Your task to perform on an android device: toggle wifi Image 0: 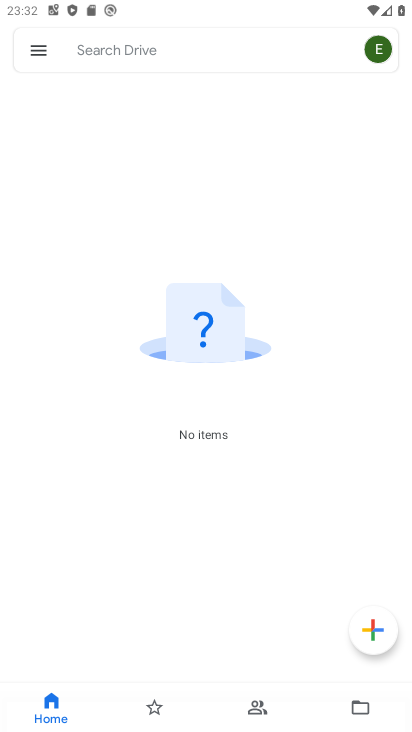
Step 0: press home button
Your task to perform on an android device: toggle wifi Image 1: 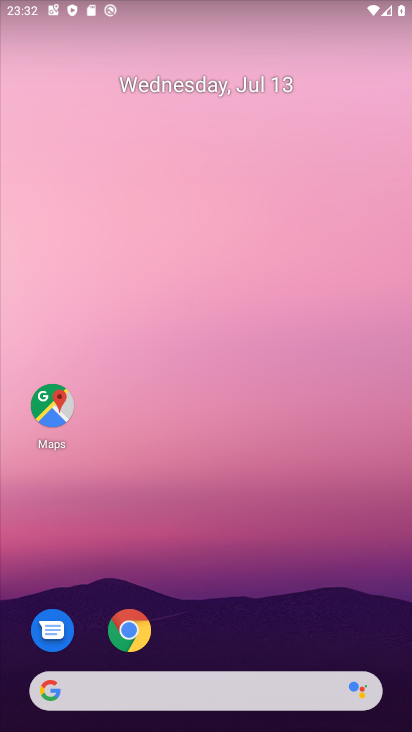
Step 1: drag from (368, 625) to (381, 109)
Your task to perform on an android device: toggle wifi Image 2: 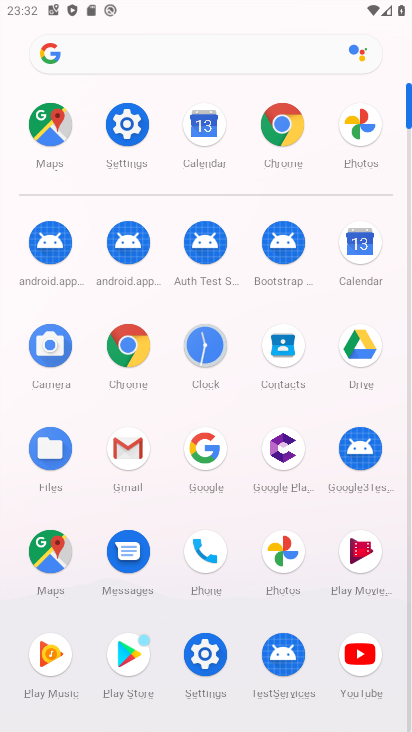
Step 2: click (136, 128)
Your task to perform on an android device: toggle wifi Image 3: 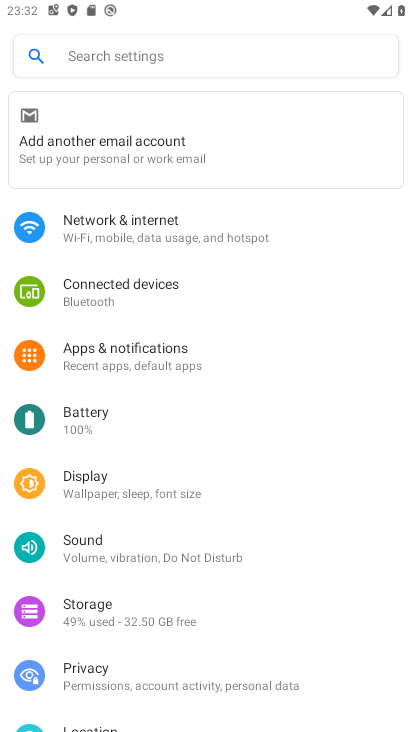
Step 3: click (168, 235)
Your task to perform on an android device: toggle wifi Image 4: 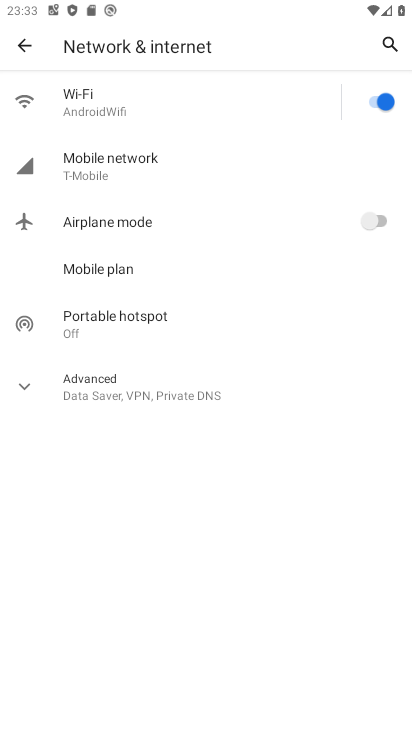
Step 4: click (382, 97)
Your task to perform on an android device: toggle wifi Image 5: 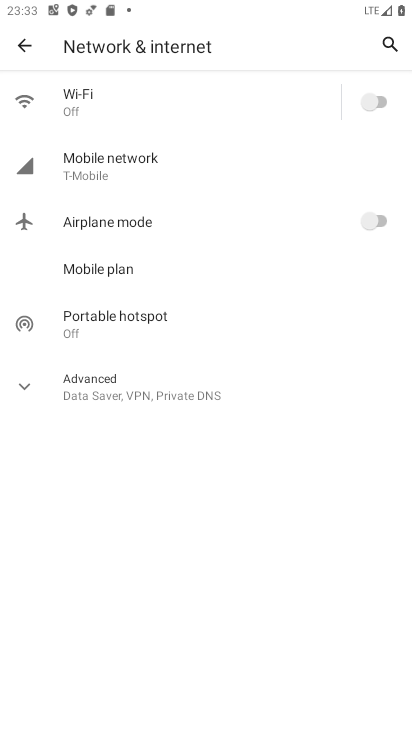
Step 5: task complete